Your task to perform on an android device: add a contact Image 0: 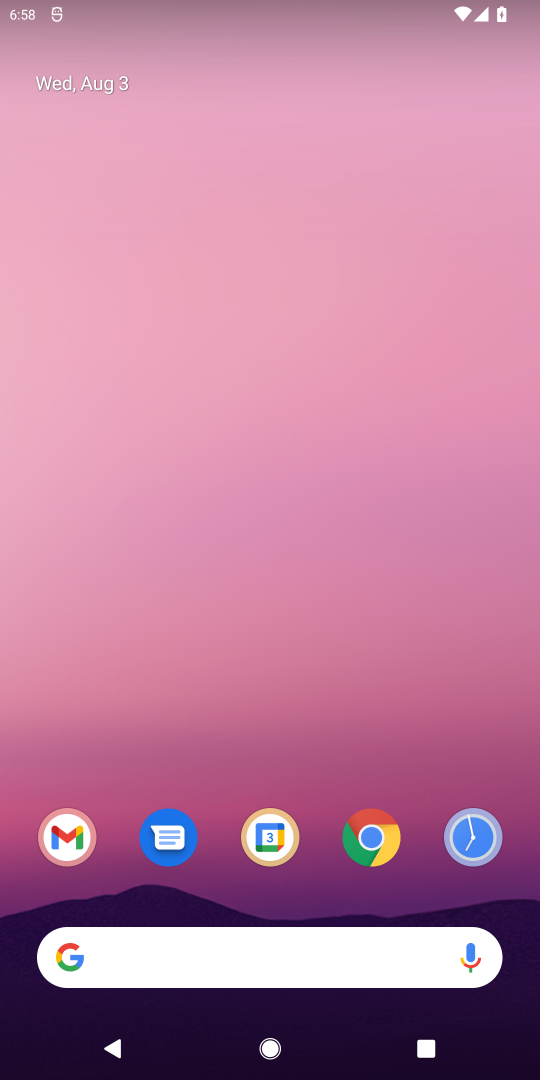
Step 0: press home button
Your task to perform on an android device: add a contact Image 1: 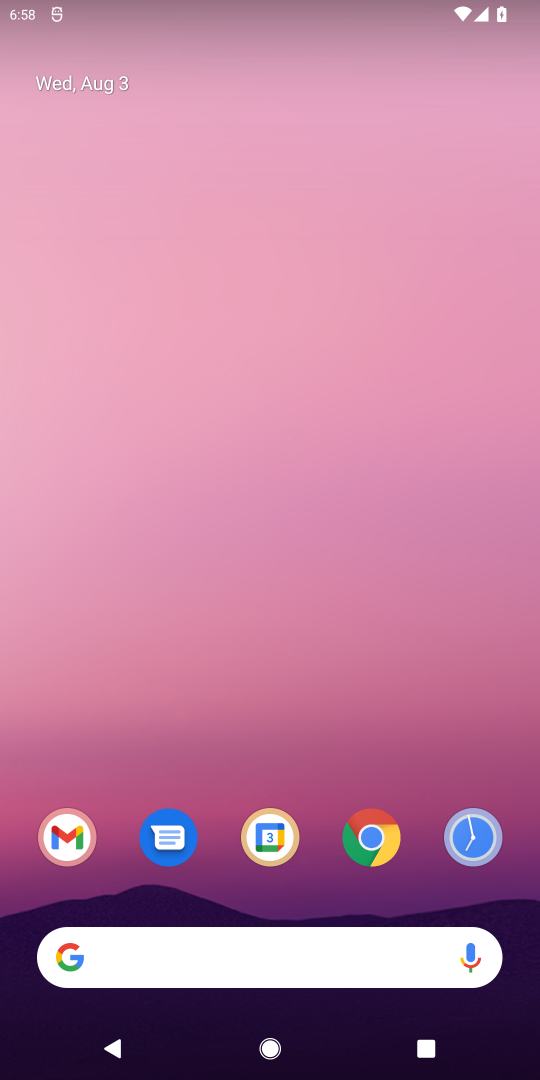
Step 1: drag from (316, 768) to (373, 105)
Your task to perform on an android device: add a contact Image 2: 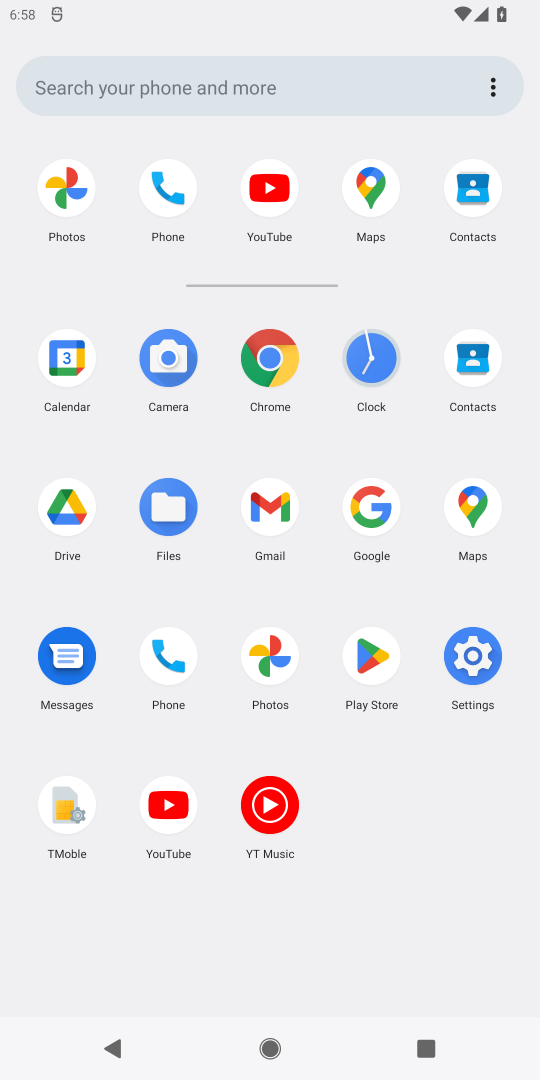
Step 2: click (463, 348)
Your task to perform on an android device: add a contact Image 3: 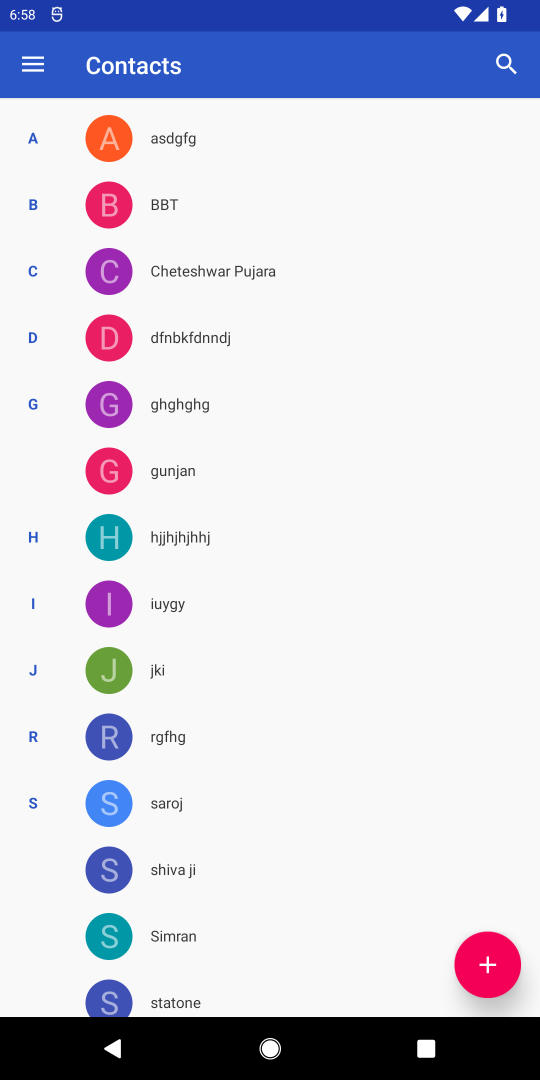
Step 3: click (473, 972)
Your task to perform on an android device: add a contact Image 4: 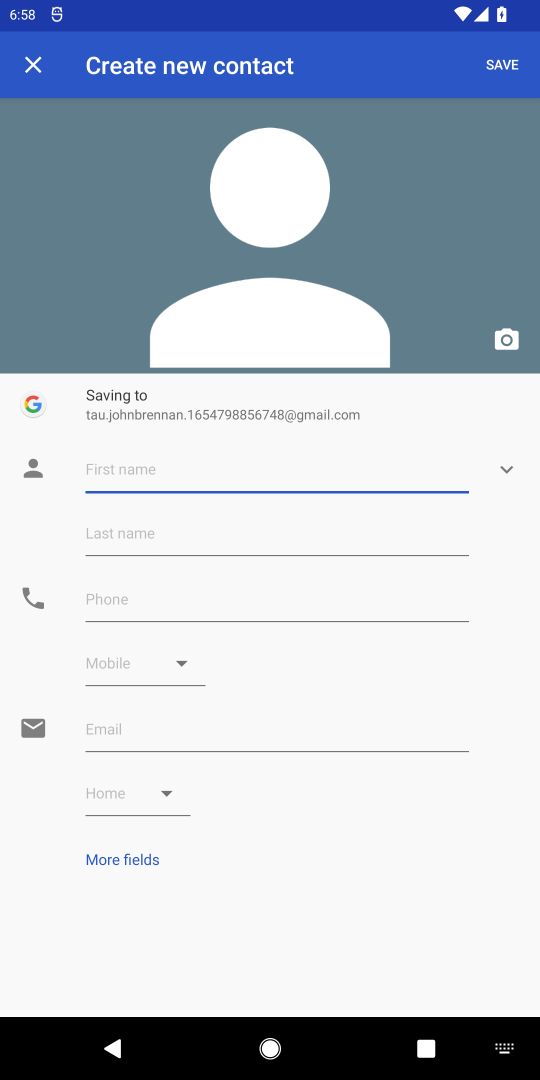
Step 4: click (134, 470)
Your task to perform on an android device: add a contact Image 5: 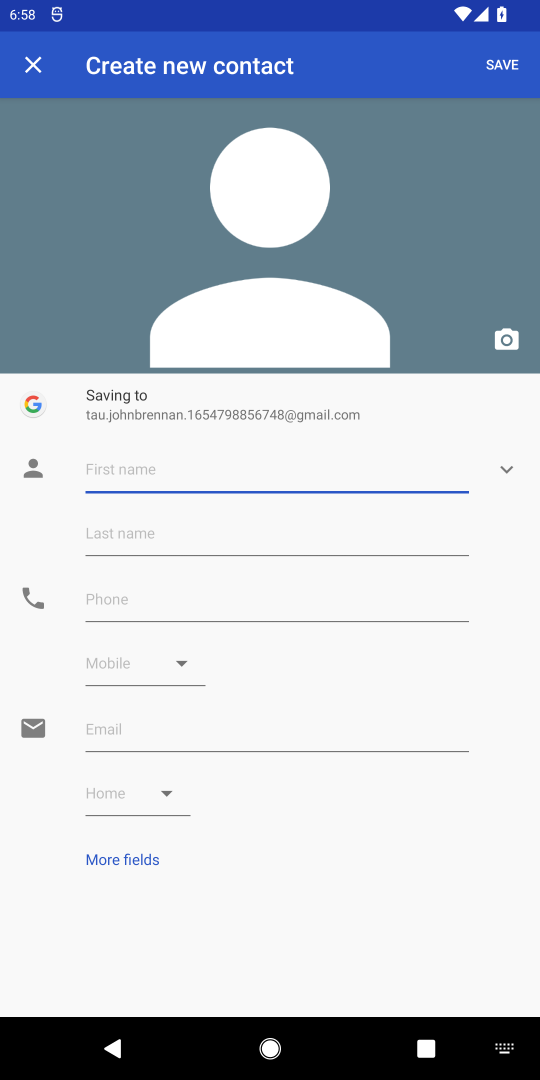
Step 5: type "vcvbdzzdzdv"
Your task to perform on an android device: add a contact Image 6: 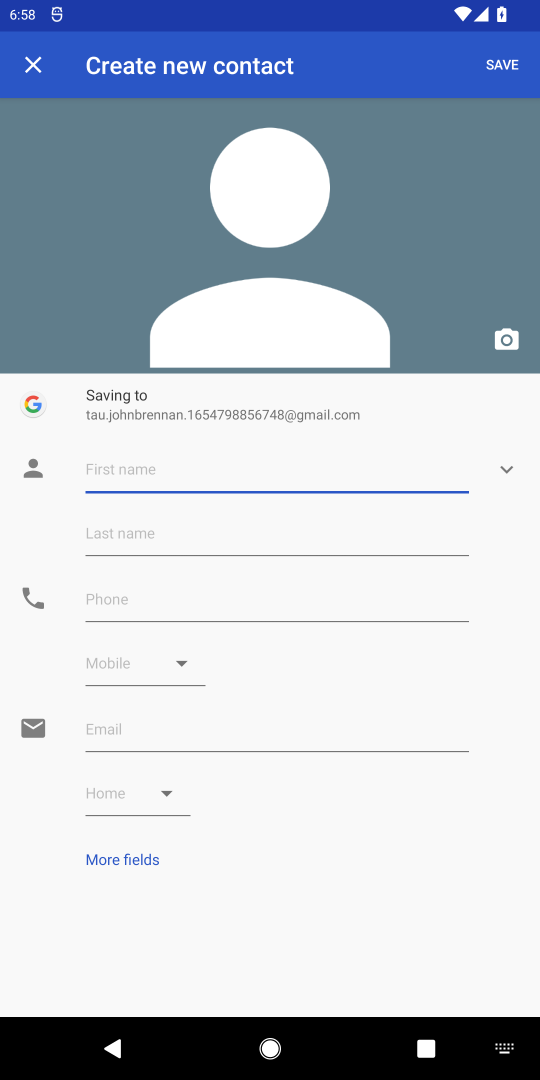
Step 6: click (161, 466)
Your task to perform on an android device: add a contact Image 7: 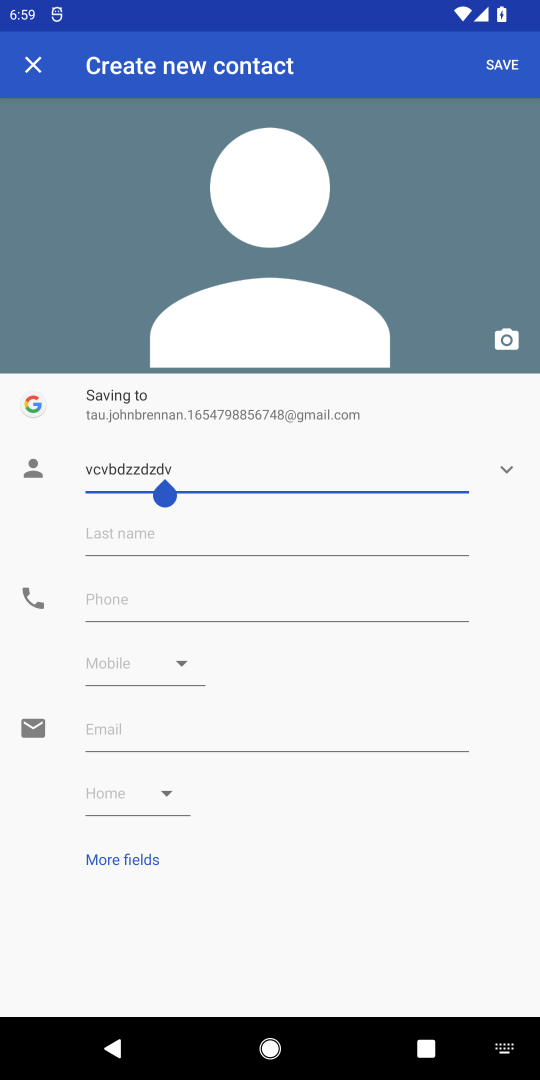
Step 7: click (152, 594)
Your task to perform on an android device: add a contact Image 8: 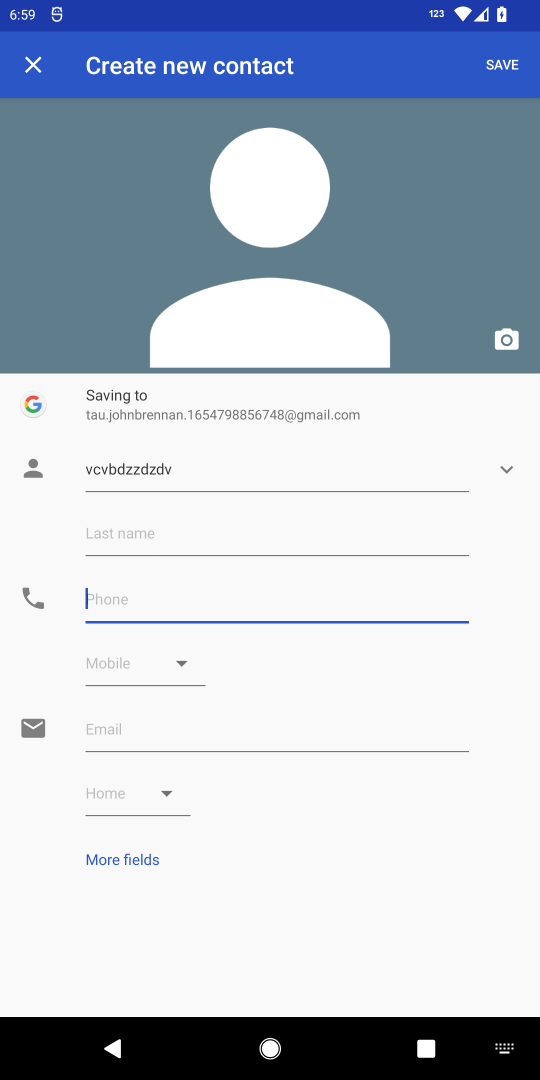
Step 8: type "5356622466"
Your task to perform on an android device: add a contact Image 9: 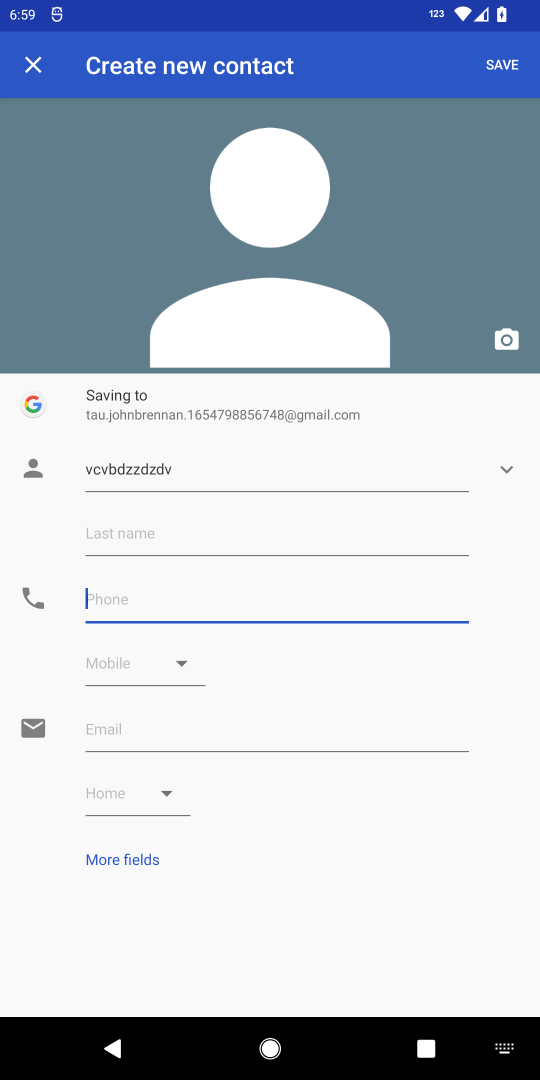
Step 9: click (196, 588)
Your task to perform on an android device: add a contact Image 10: 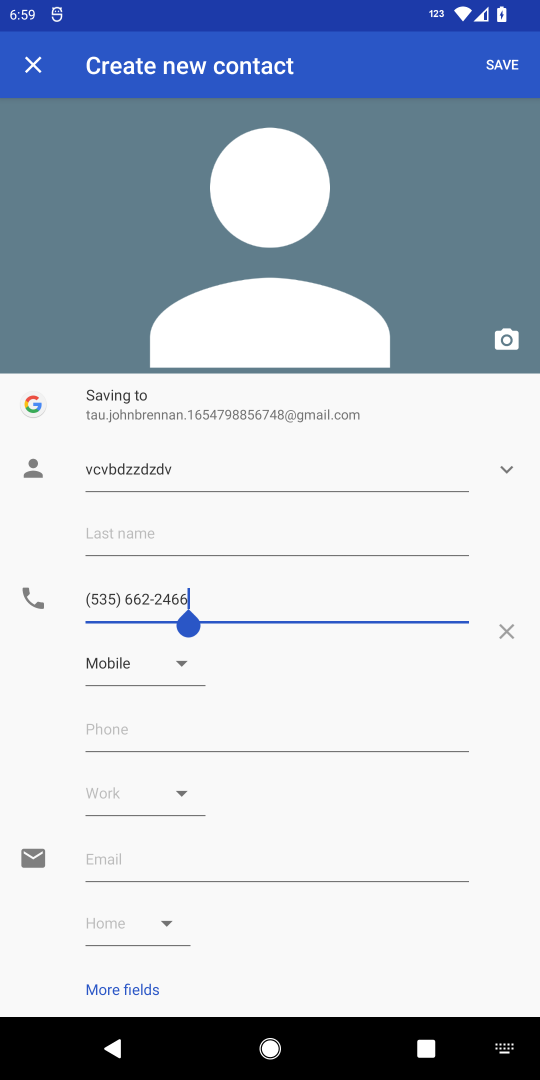
Step 10: click (484, 61)
Your task to perform on an android device: add a contact Image 11: 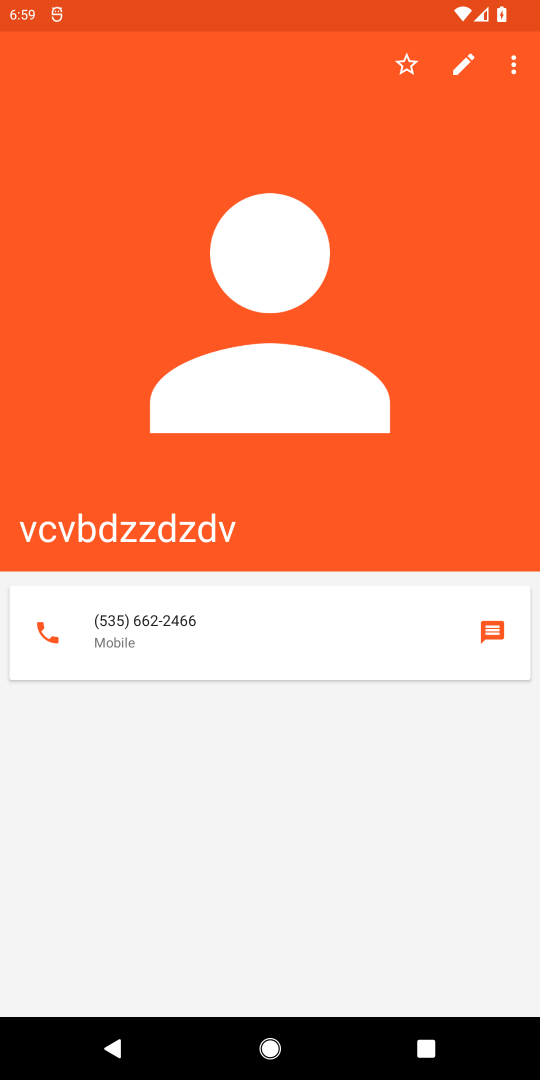
Step 11: task complete